Your task to perform on an android device: open app "AliExpress" Image 0: 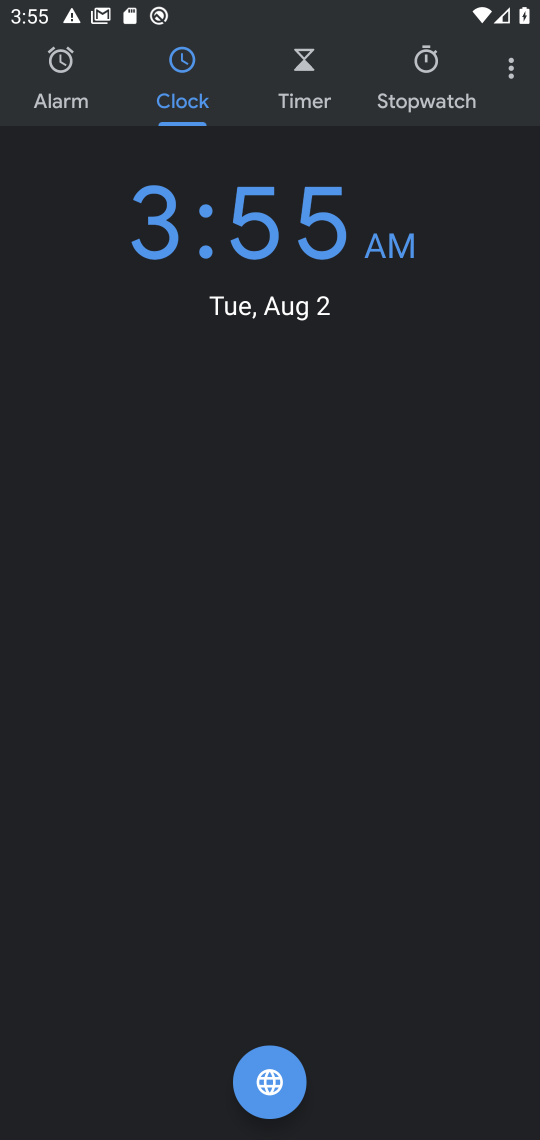
Step 0: press home button
Your task to perform on an android device: open app "AliExpress" Image 1: 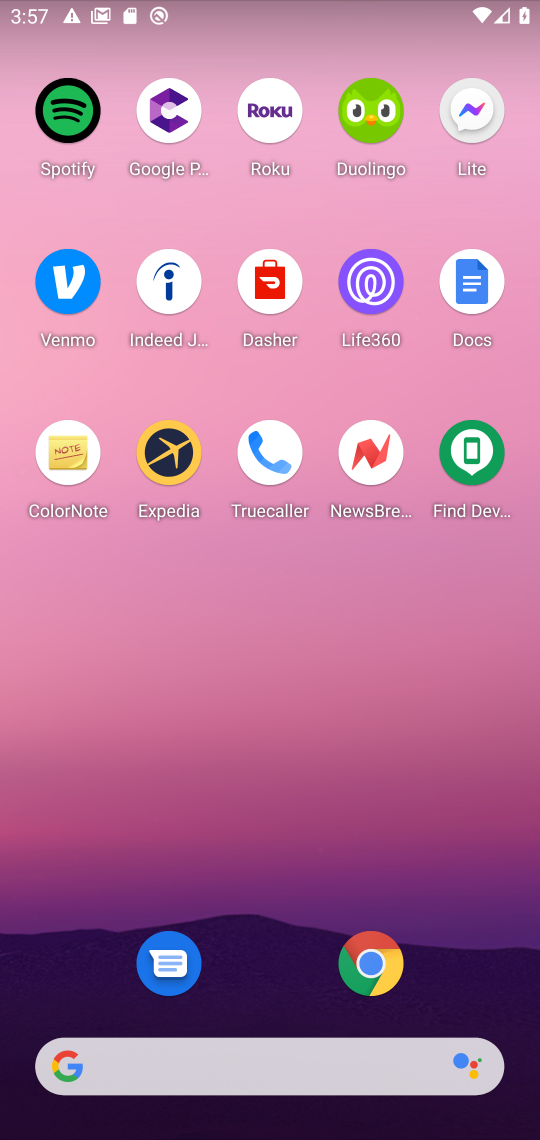
Step 1: click (194, 757)
Your task to perform on an android device: open app "AliExpress" Image 2: 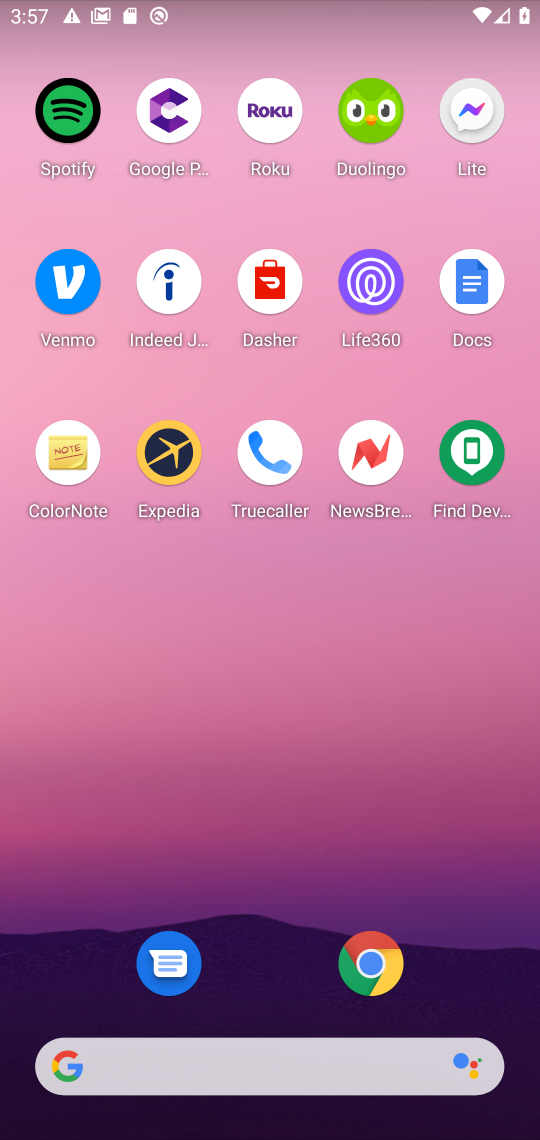
Step 2: drag from (126, 732) to (528, 655)
Your task to perform on an android device: open app "AliExpress" Image 3: 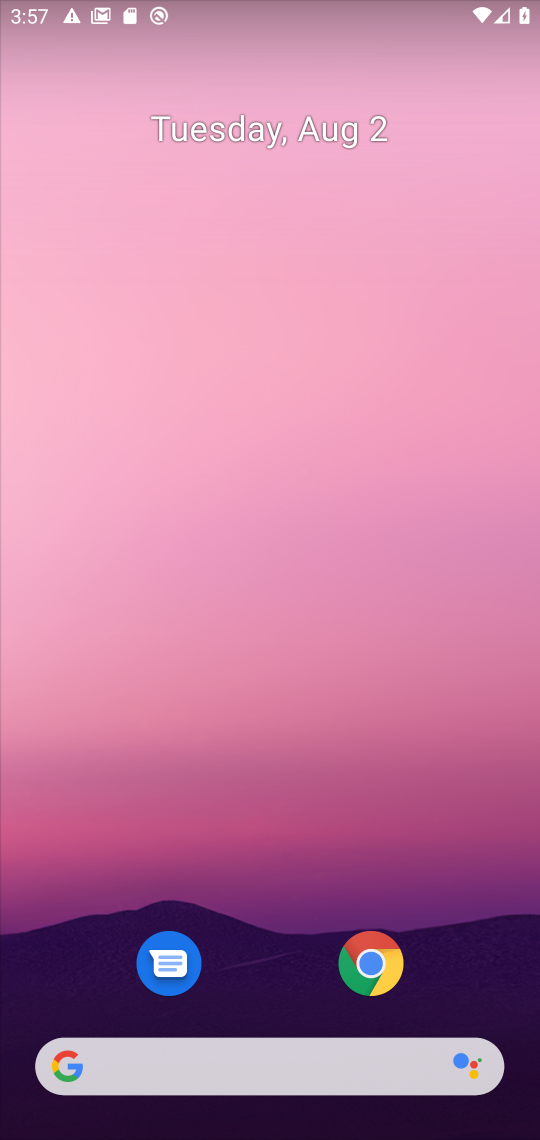
Step 3: drag from (330, 911) to (231, 301)
Your task to perform on an android device: open app "AliExpress" Image 4: 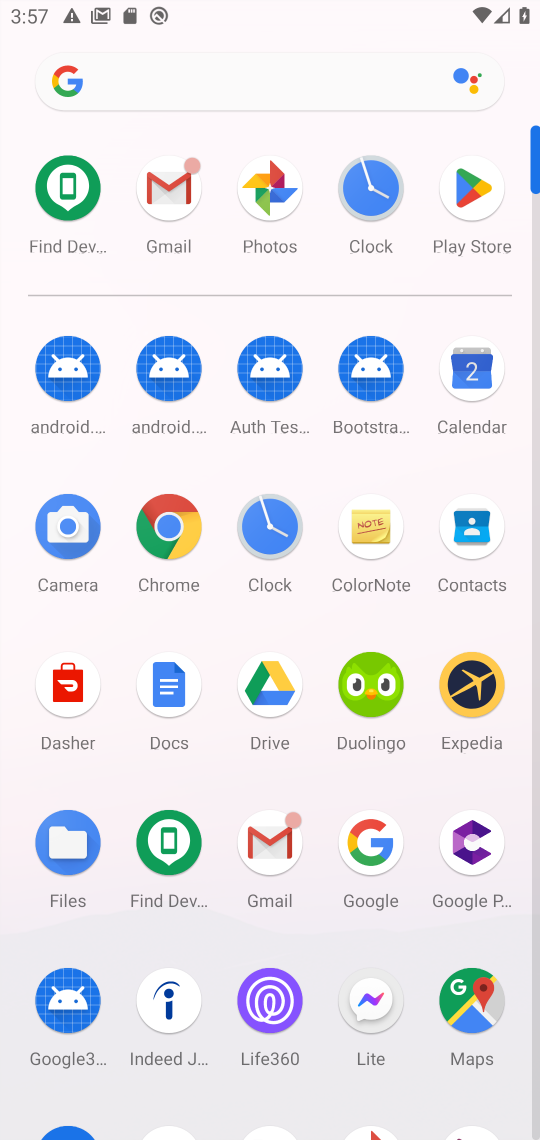
Step 4: click (451, 191)
Your task to perform on an android device: open app "AliExpress" Image 5: 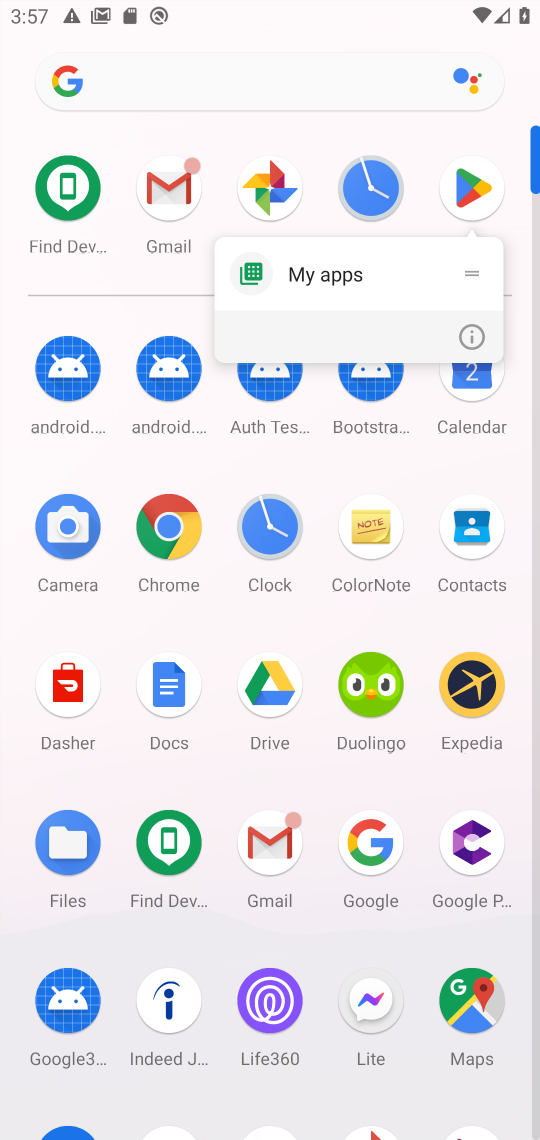
Step 5: click (484, 198)
Your task to perform on an android device: open app "AliExpress" Image 6: 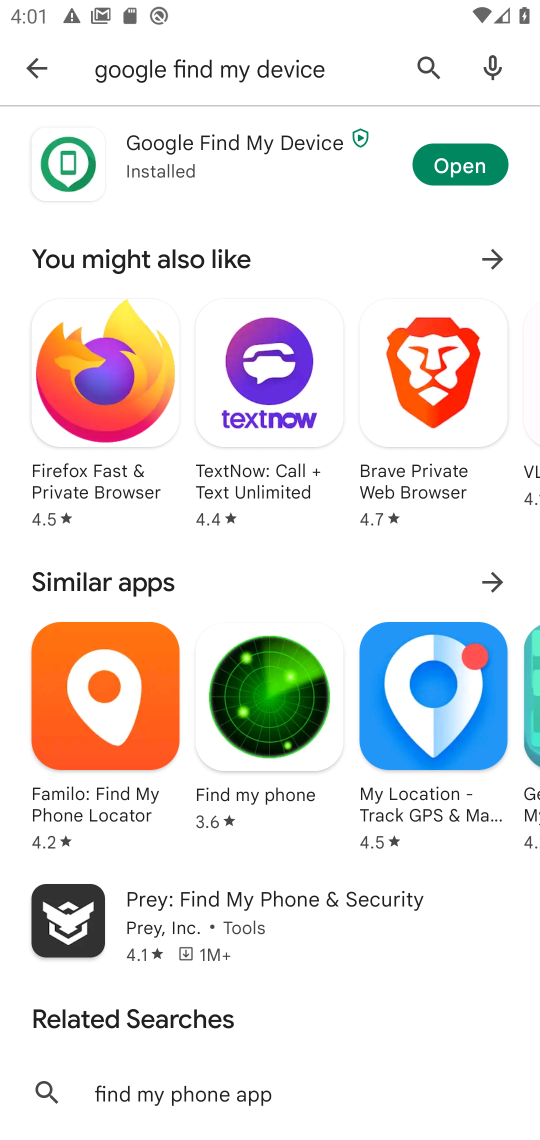
Step 6: click (466, 180)
Your task to perform on an android device: open app "AliExpress" Image 7: 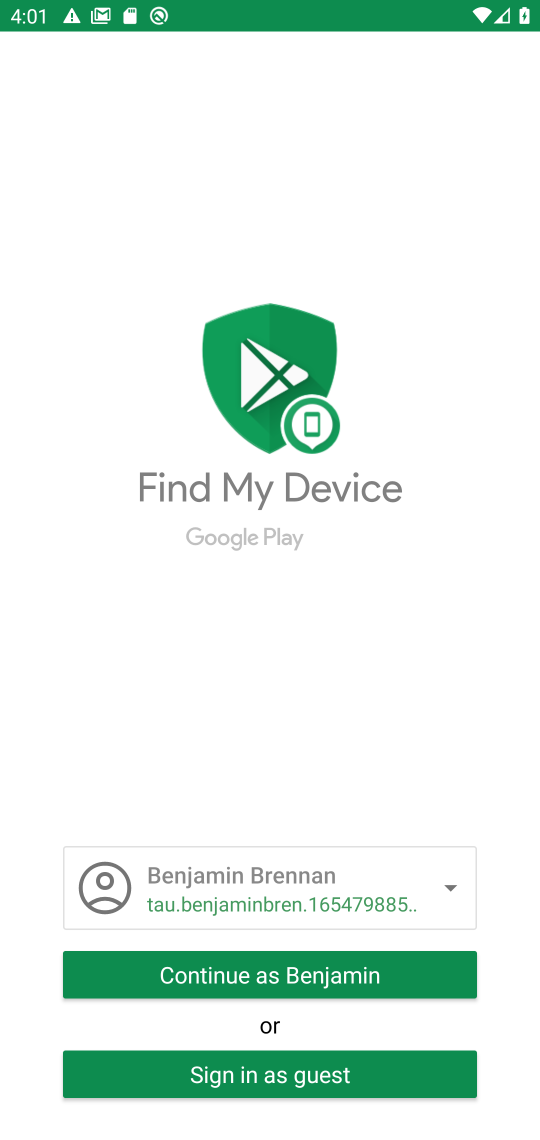
Step 7: press home button
Your task to perform on an android device: open app "AliExpress" Image 8: 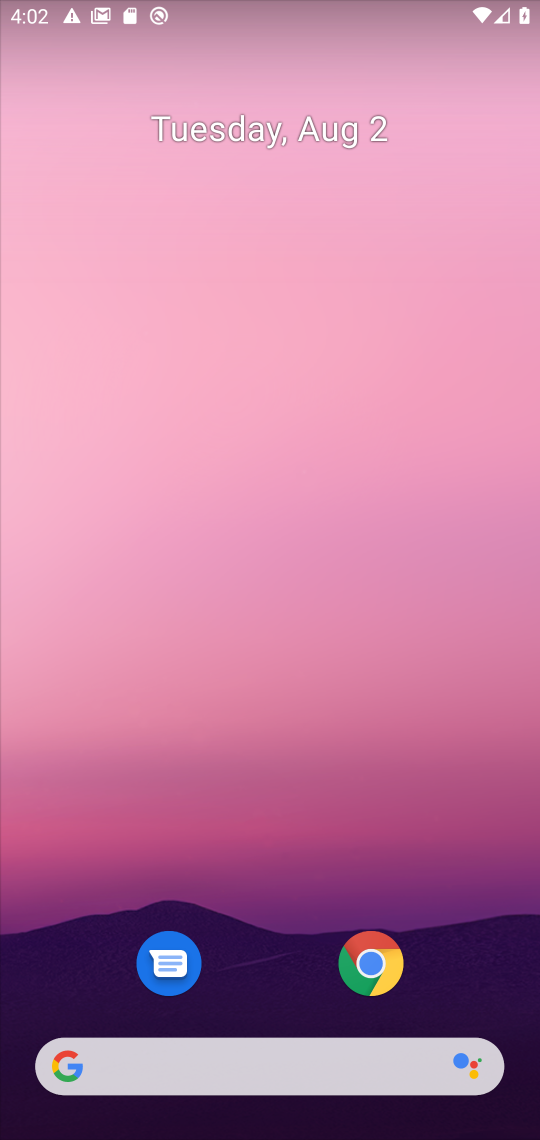
Step 8: drag from (160, 772) to (1, 244)
Your task to perform on an android device: open app "AliExpress" Image 9: 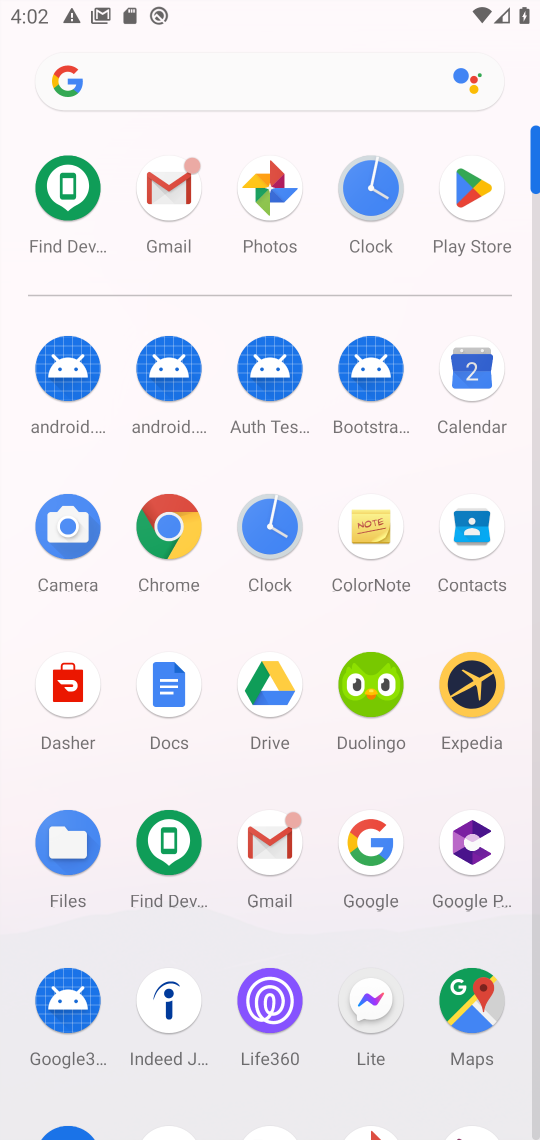
Step 9: drag from (502, 416) to (26, 586)
Your task to perform on an android device: open app "AliExpress" Image 10: 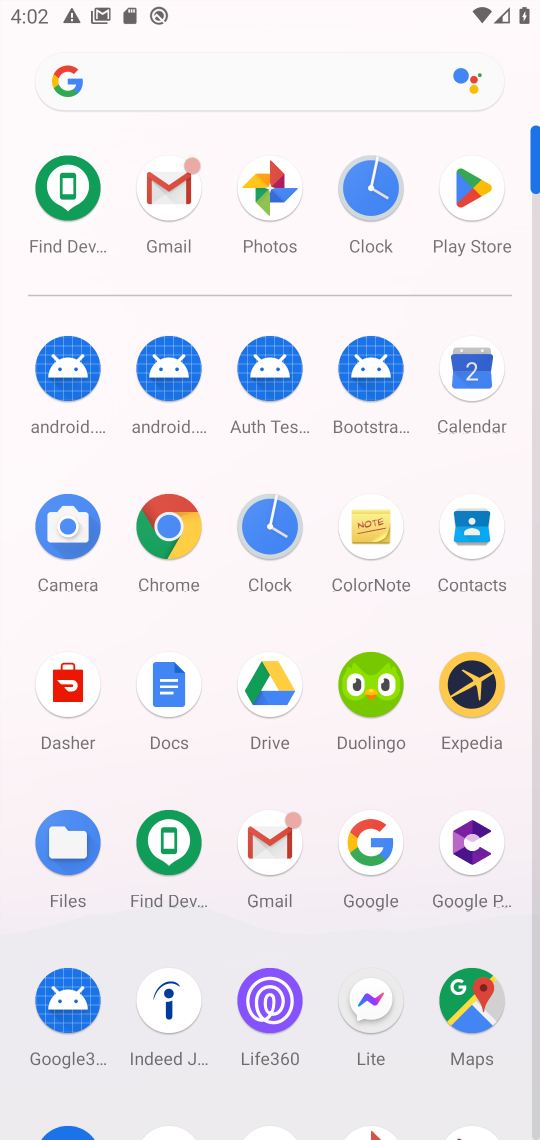
Step 10: drag from (358, 1018) to (68, 412)
Your task to perform on an android device: open app "AliExpress" Image 11: 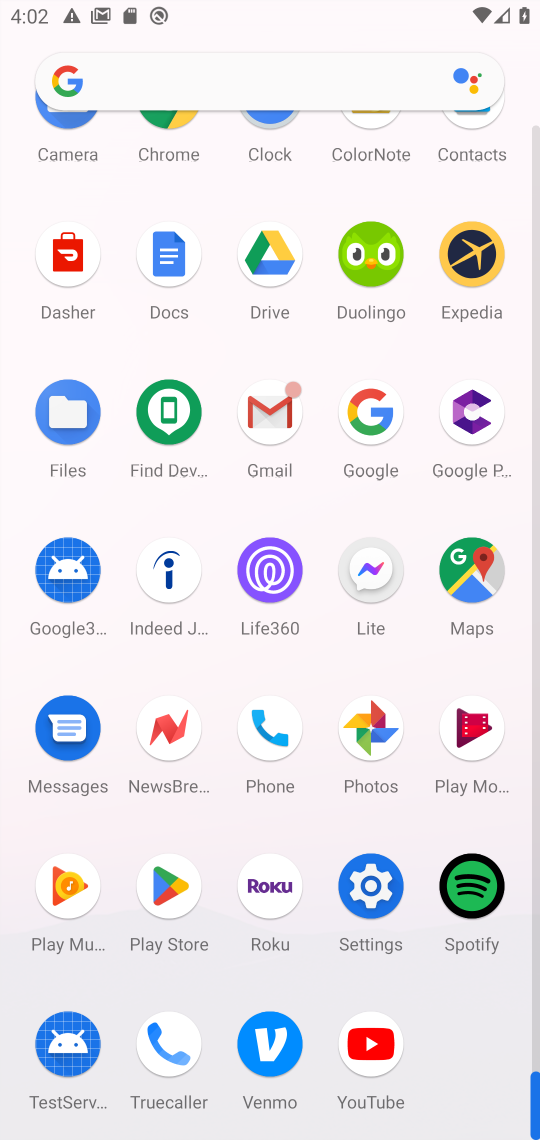
Step 11: drag from (366, 775) to (132, 223)
Your task to perform on an android device: open app "AliExpress" Image 12: 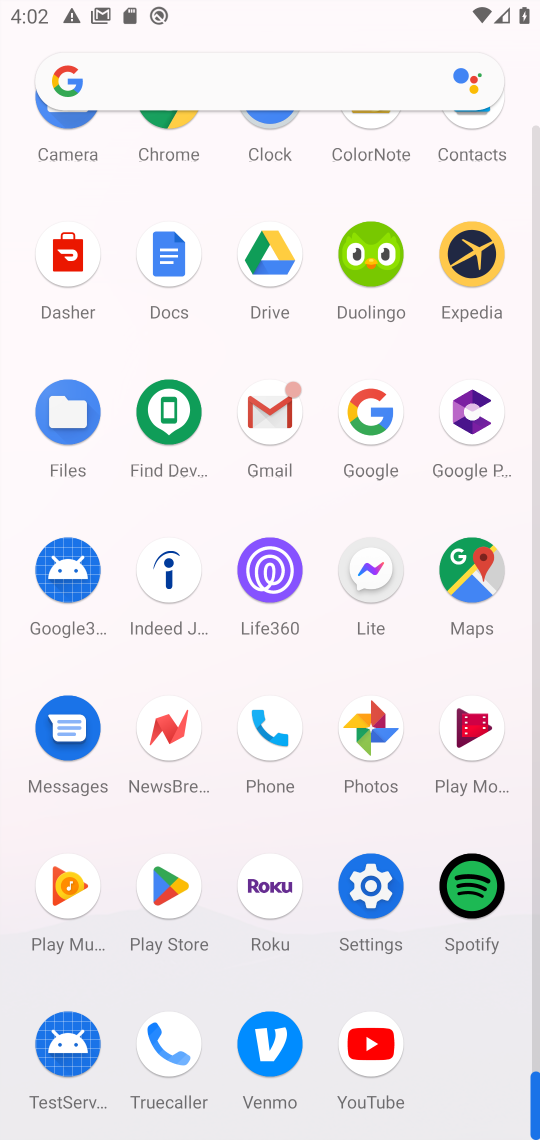
Step 12: drag from (358, 916) to (122, 283)
Your task to perform on an android device: open app "AliExpress" Image 13: 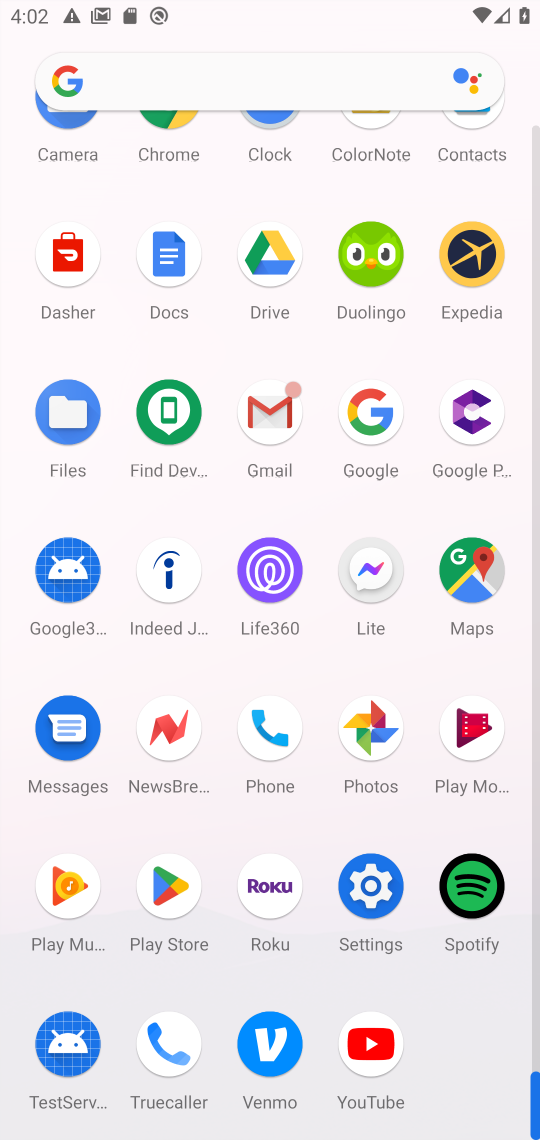
Step 13: drag from (257, 329) to (325, 1007)
Your task to perform on an android device: open app "AliExpress" Image 14: 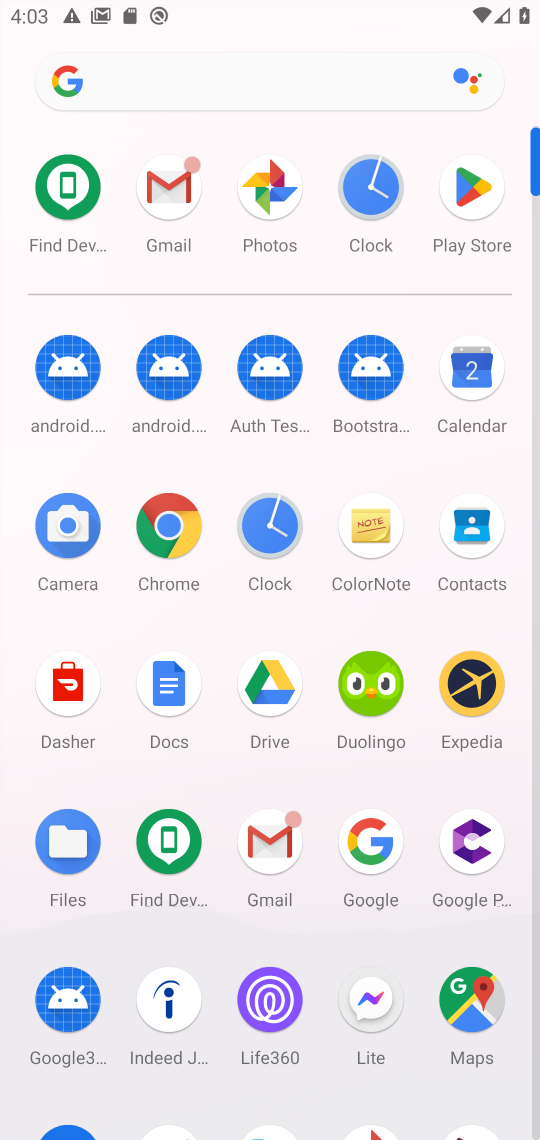
Step 14: drag from (224, 1031) to (194, 438)
Your task to perform on an android device: open app "AliExpress" Image 15: 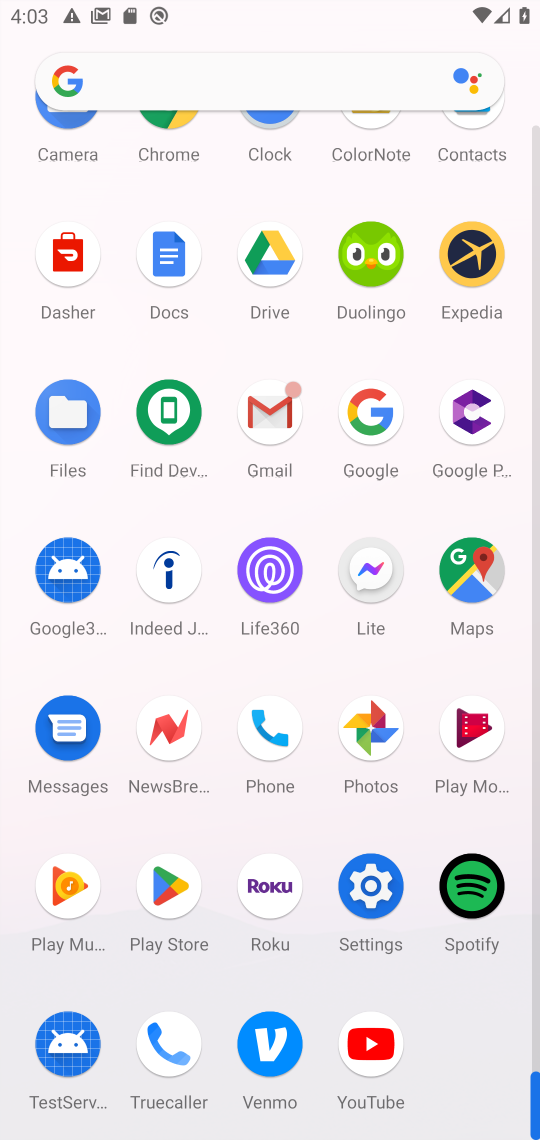
Step 15: click (155, 871)
Your task to perform on an android device: open app "AliExpress" Image 16: 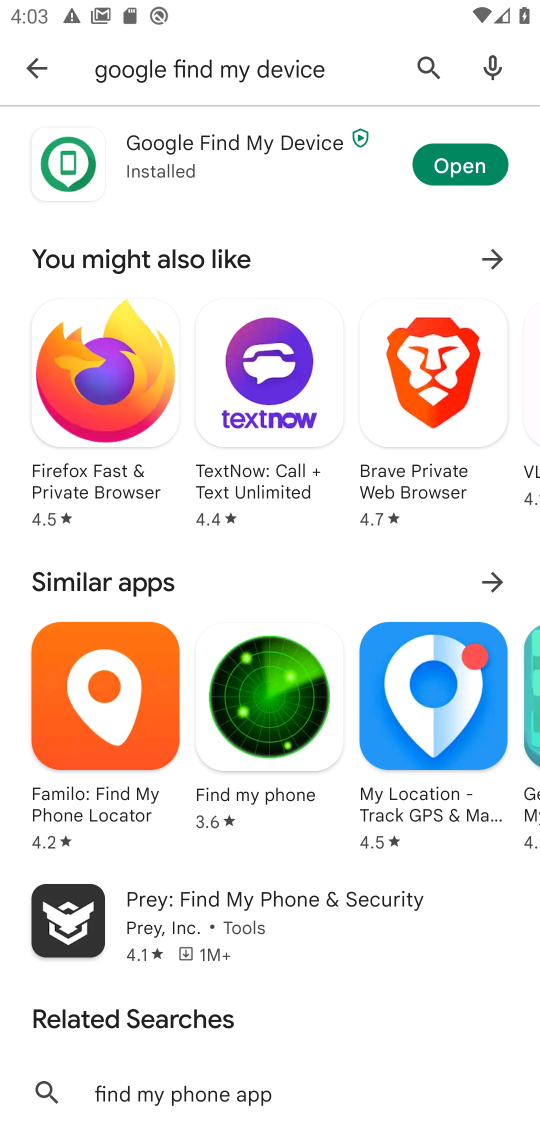
Step 16: click (422, 73)
Your task to perform on an android device: open app "AliExpress" Image 17: 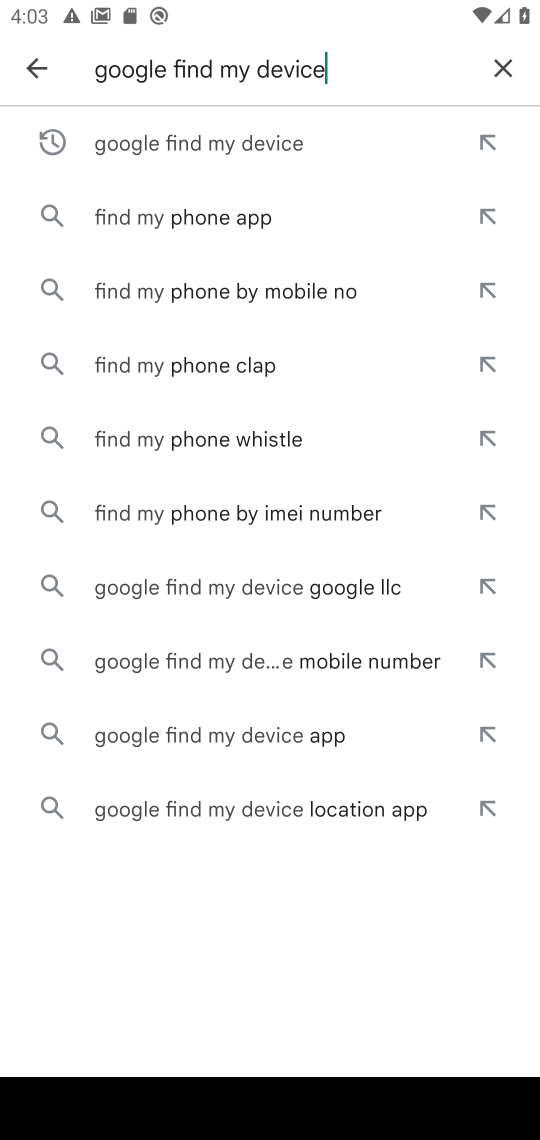
Step 17: click (496, 70)
Your task to perform on an android device: open app "AliExpress" Image 18: 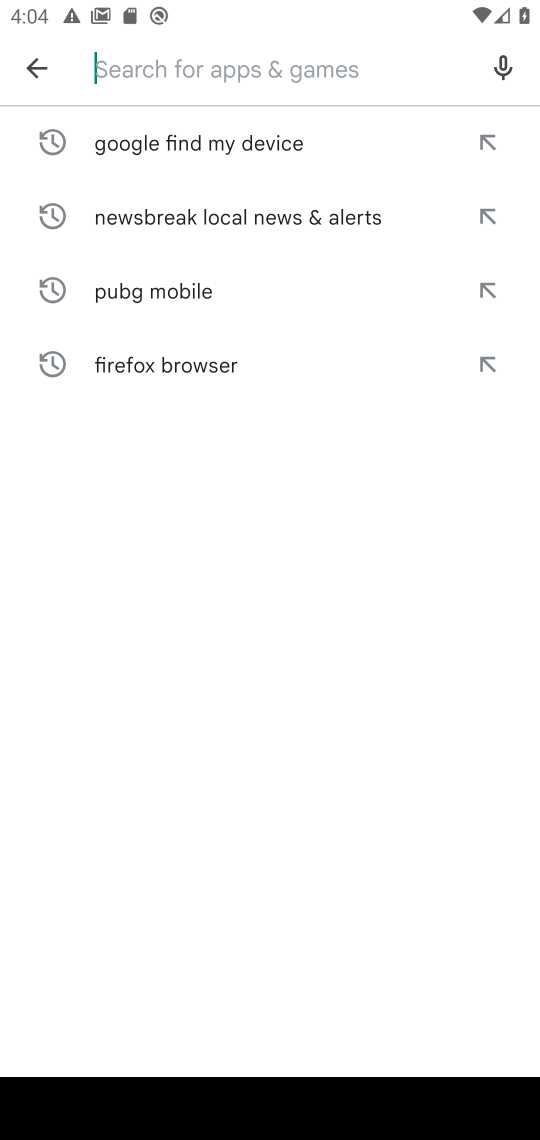
Step 18: type "AliExpress"
Your task to perform on an android device: open app "AliExpress" Image 19: 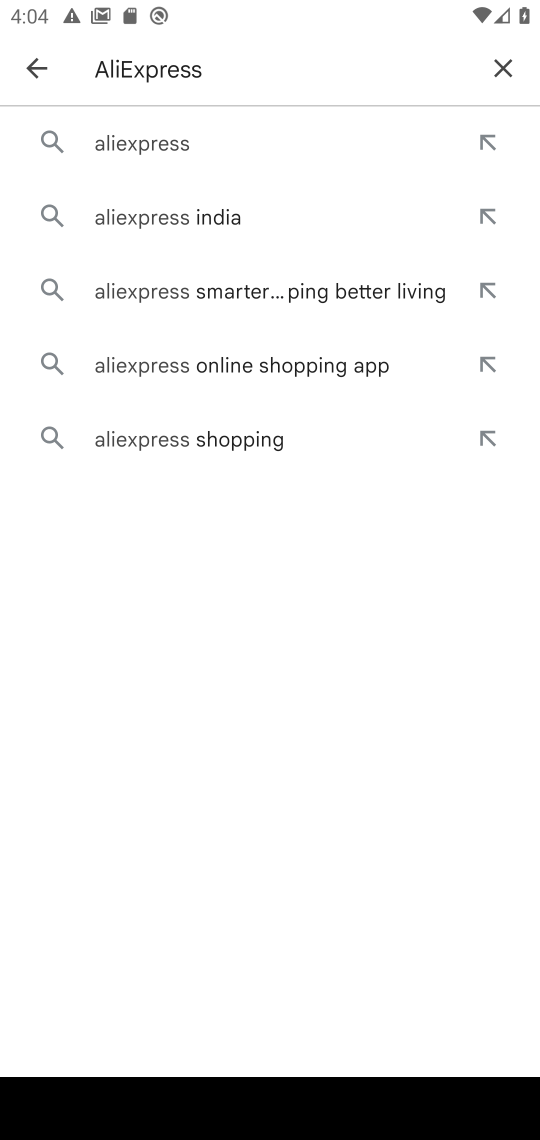
Step 19: click (174, 134)
Your task to perform on an android device: open app "AliExpress" Image 20: 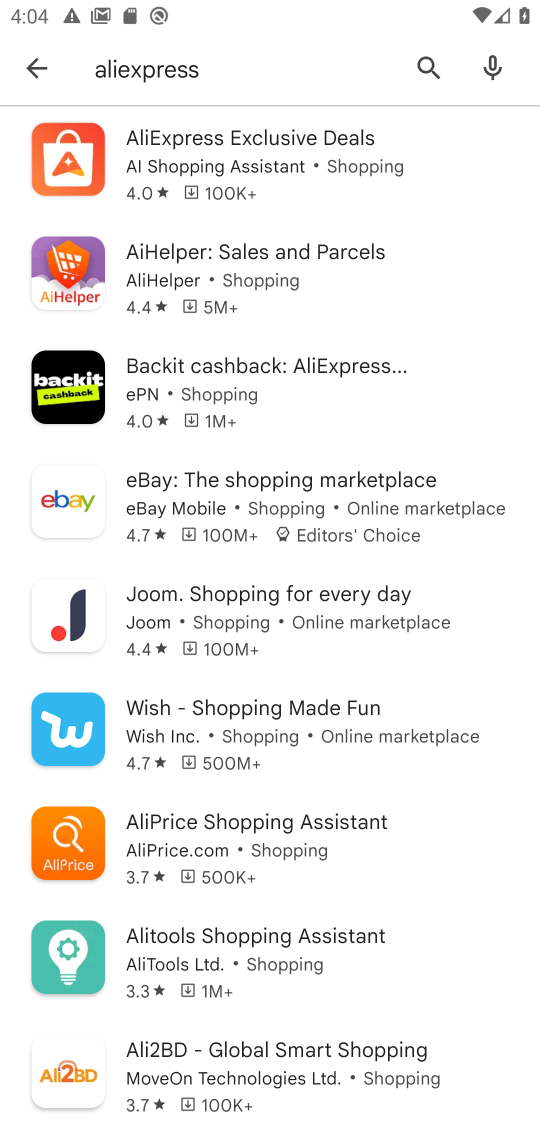
Step 20: click (202, 179)
Your task to perform on an android device: open app "AliExpress" Image 21: 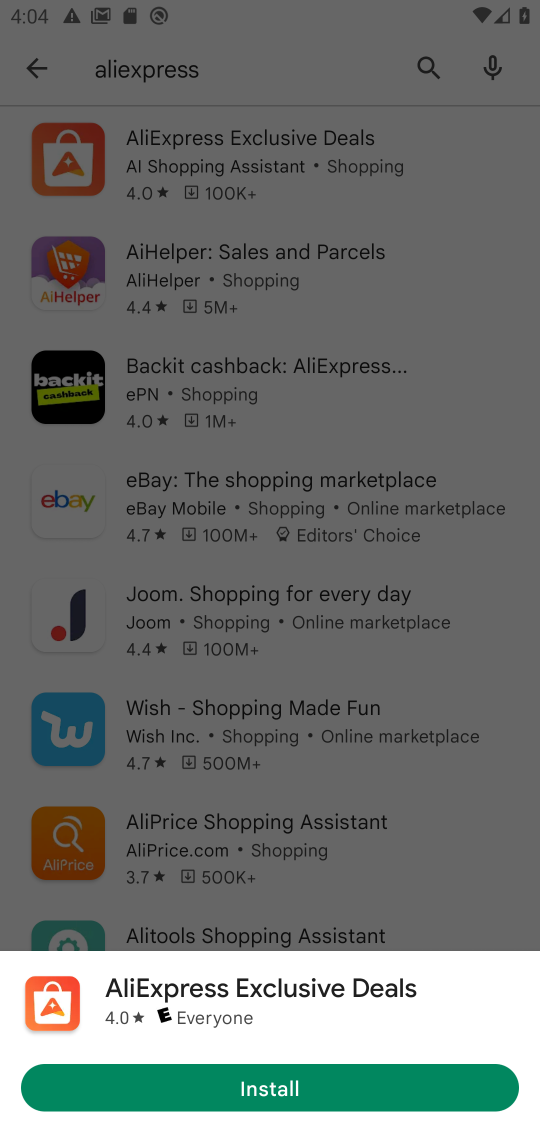
Step 21: click (237, 1089)
Your task to perform on an android device: open app "AliExpress" Image 22: 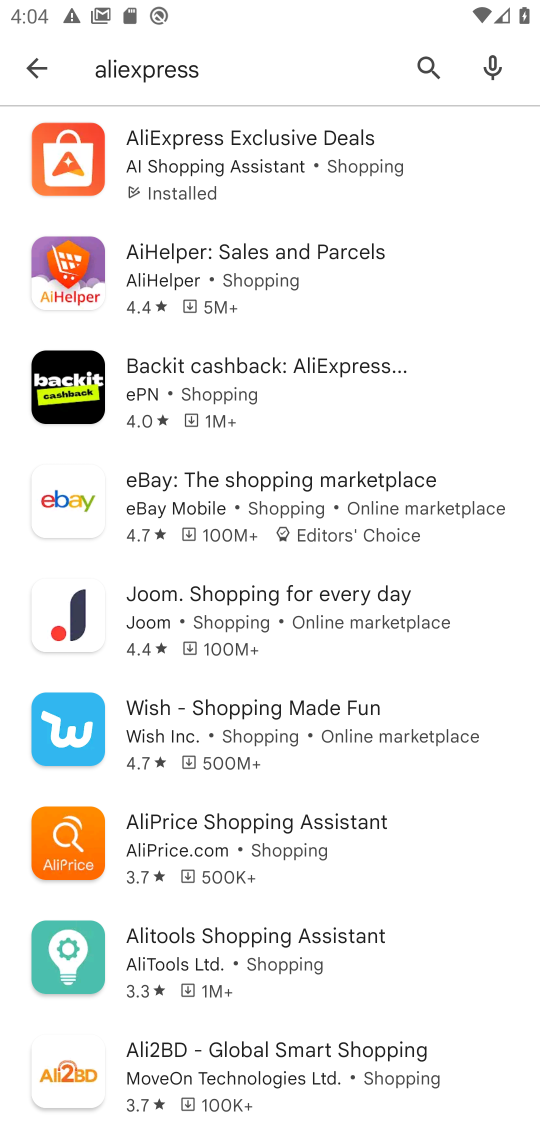
Step 22: click (219, 156)
Your task to perform on an android device: open app "AliExpress" Image 23: 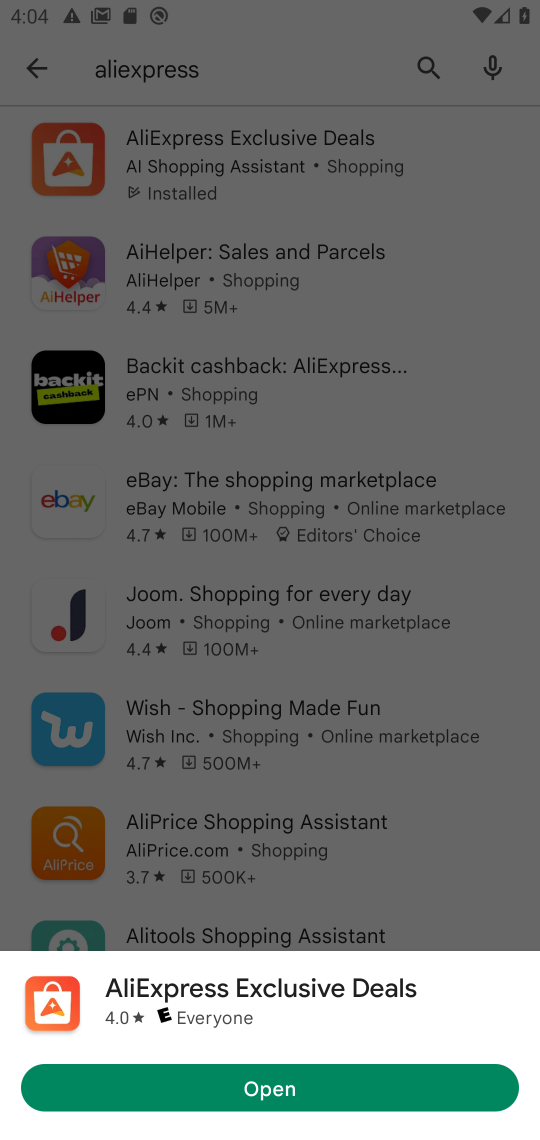
Step 23: click (254, 1084)
Your task to perform on an android device: open app "AliExpress" Image 24: 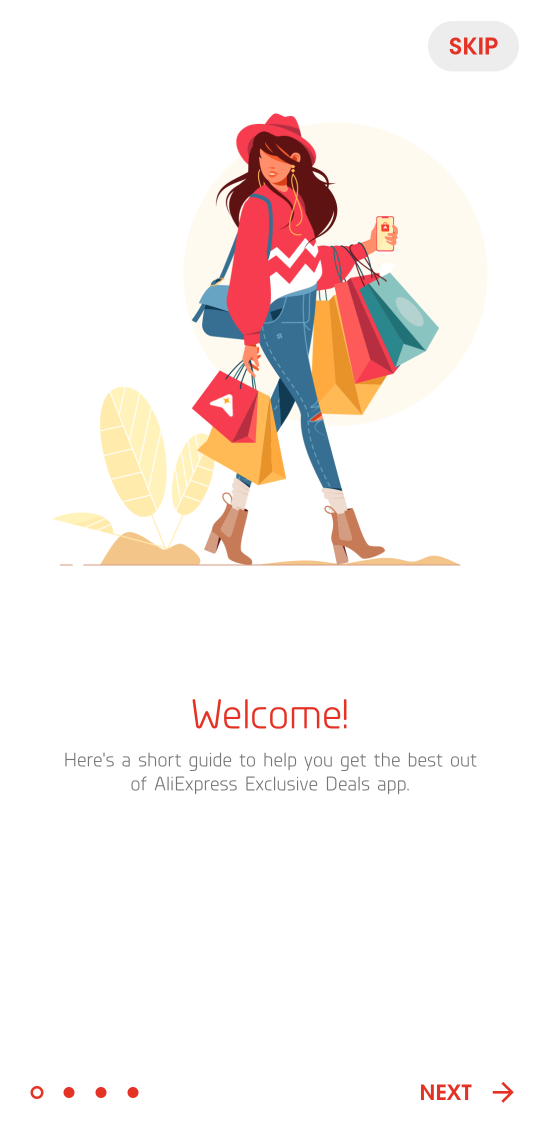
Step 24: task complete